Your task to perform on an android device: remove spam from my inbox in the gmail app Image 0: 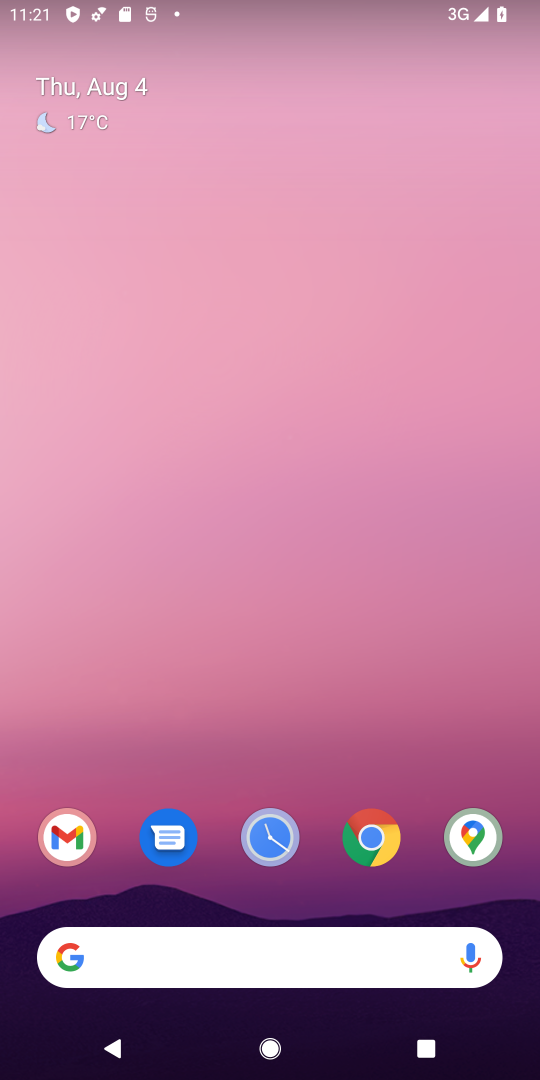
Step 0: drag from (450, 919) to (313, 28)
Your task to perform on an android device: remove spam from my inbox in the gmail app Image 1: 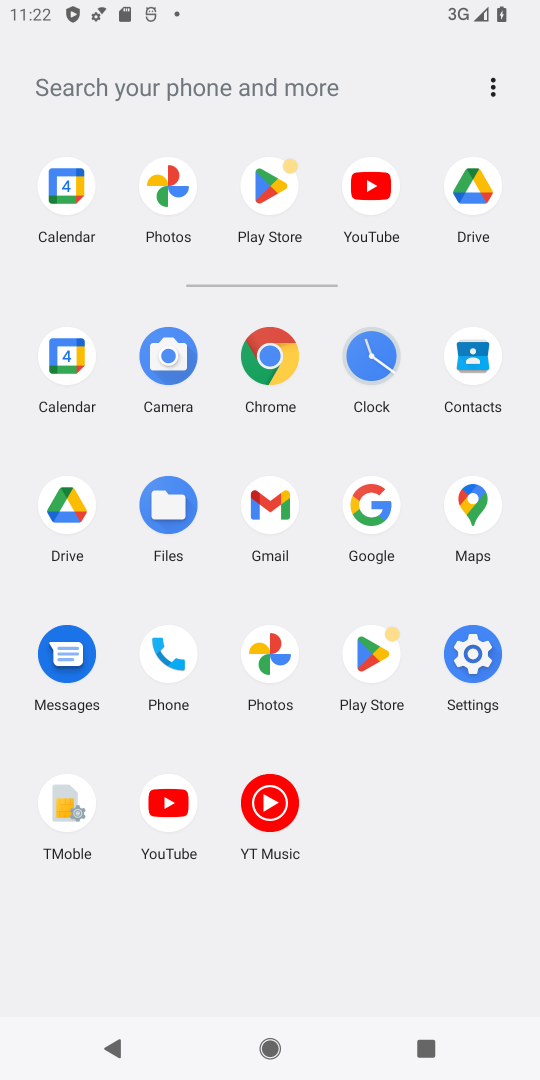
Step 1: click (284, 503)
Your task to perform on an android device: remove spam from my inbox in the gmail app Image 2: 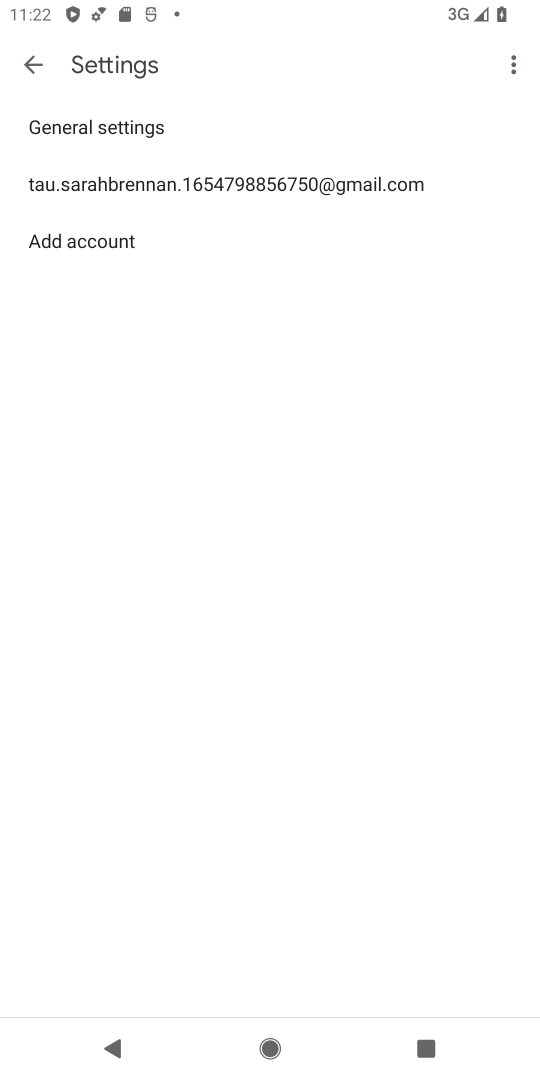
Step 2: task complete